Your task to perform on an android device: View the shopping cart on amazon. Add "razer kraken" to the cart on amazon, then select checkout. Image 0: 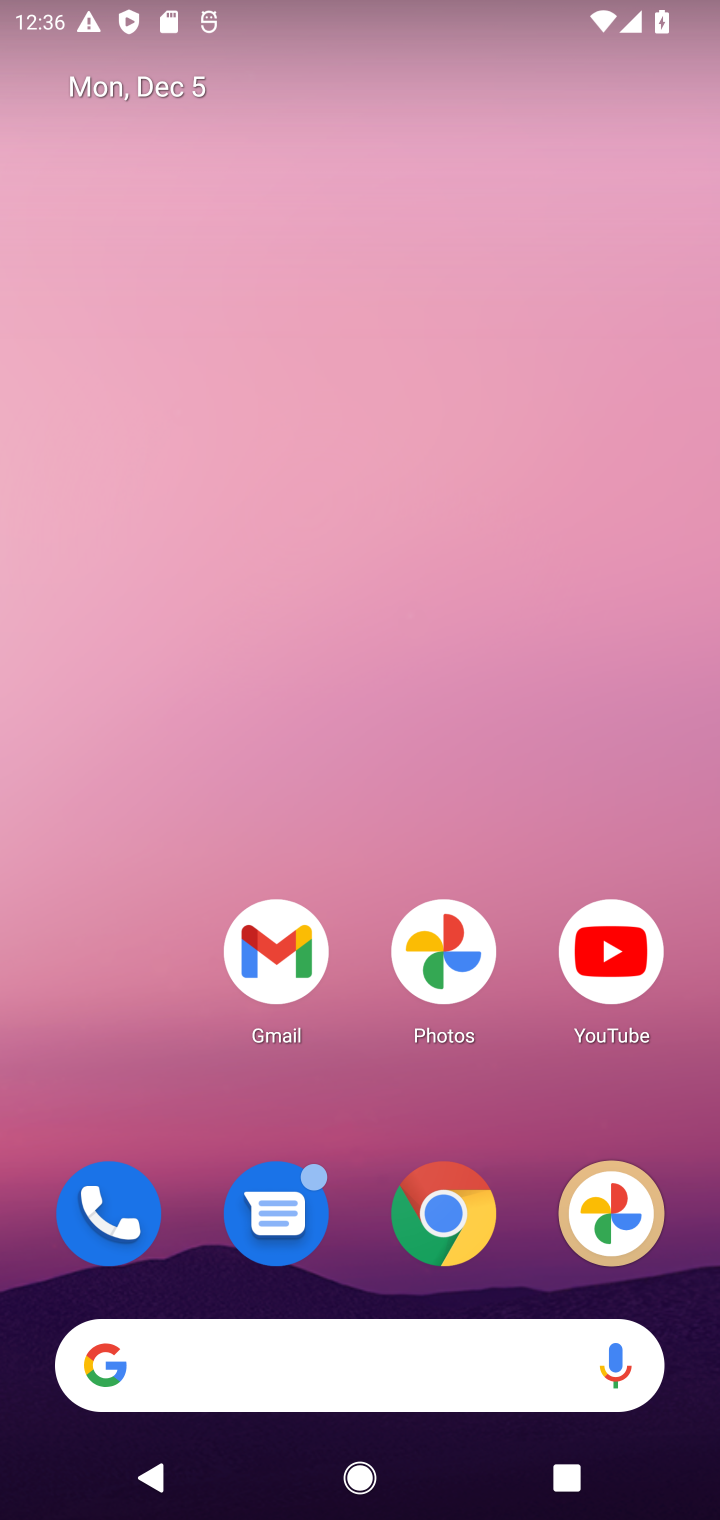
Step 0: click (435, 1225)
Your task to perform on an android device: View the shopping cart on amazon. Add "razer kraken" to the cart on amazon, then select checkout. Image 1: 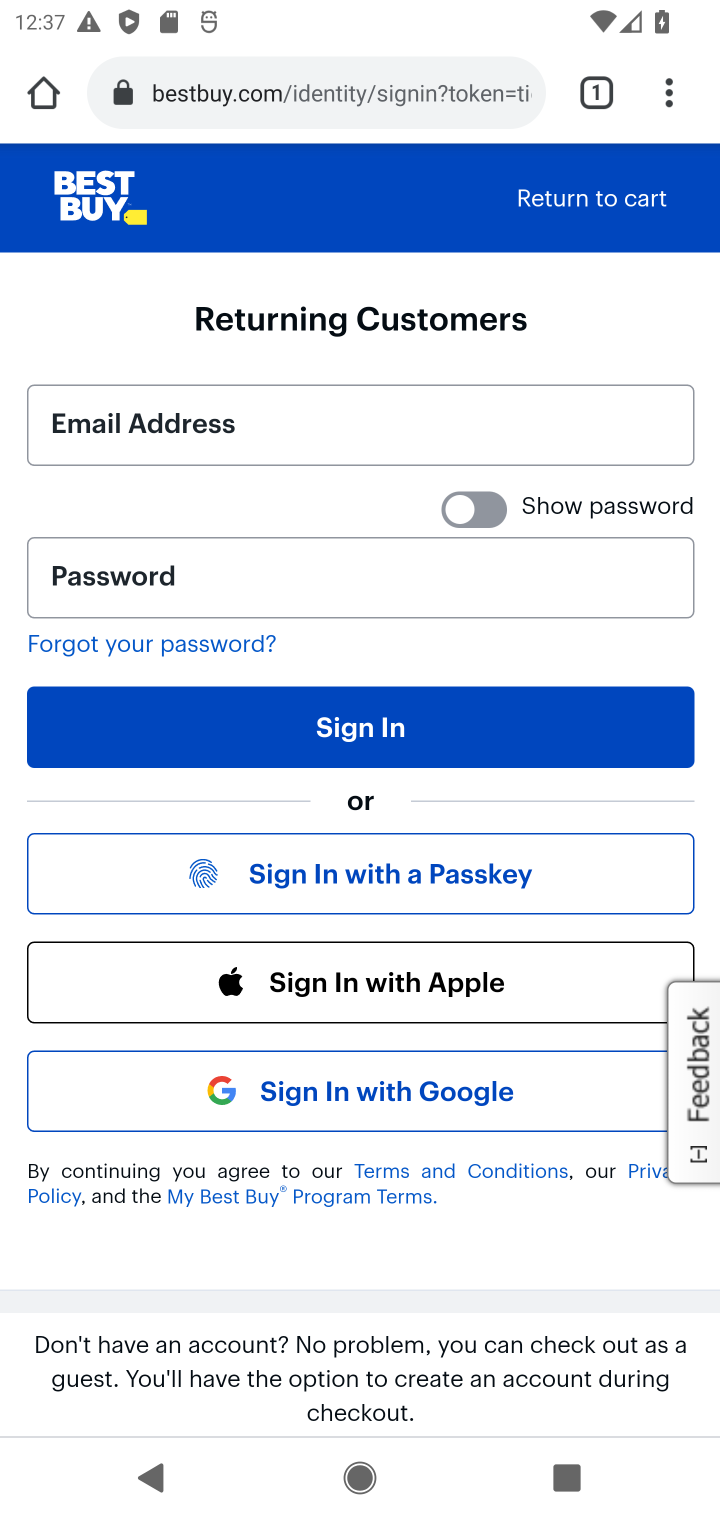
Step 1: click (330, 85)
Your task to perform on an android device: View the shopping cart on amazon. Add "razer kraken" to the cart on amazon, then select checkout. Image 2: 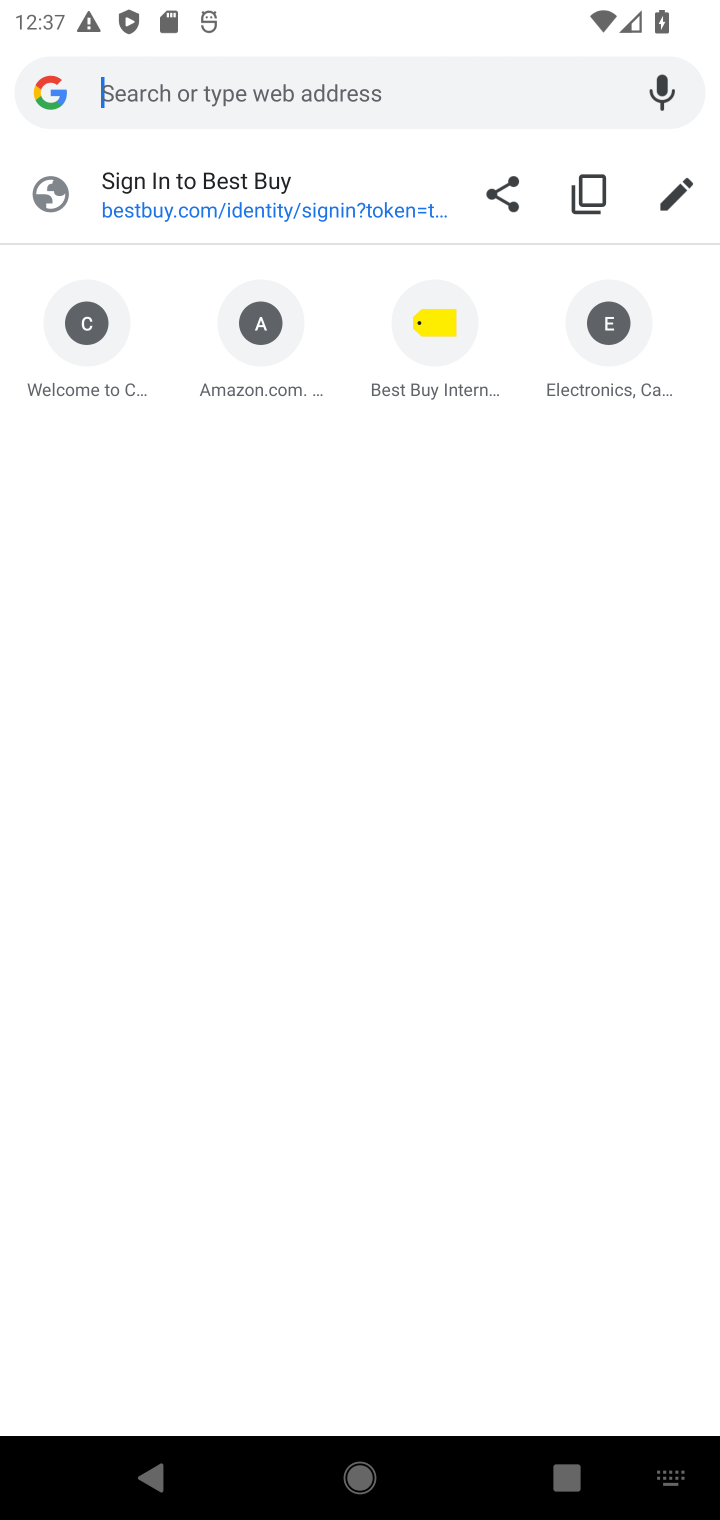
Step 2: click (239, 362)
Your task to perform on an android device: View the shopping cart on amazon. Add "razer kraken" to the cart on amazon, then select checkout. Image 3: 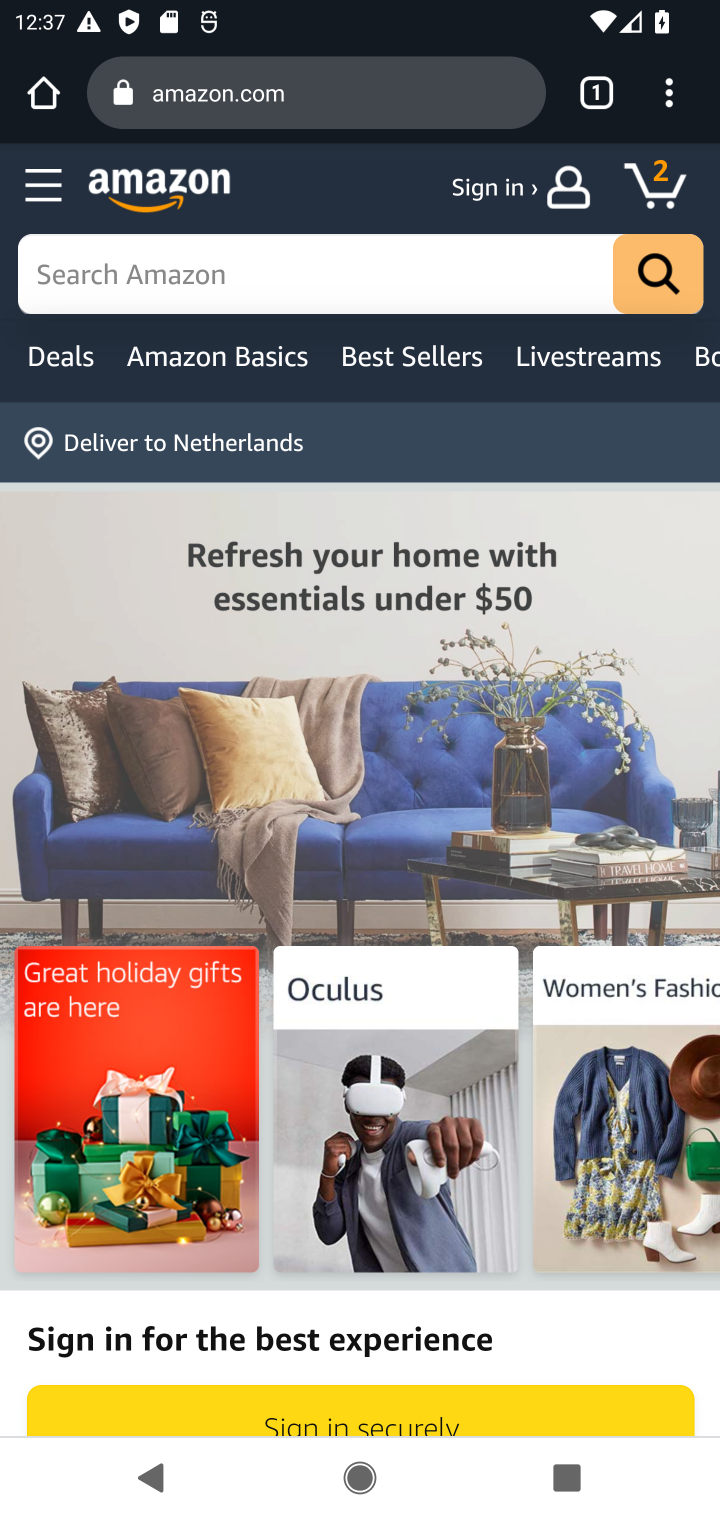
Step 3: click (649, 192)
Your task to perform on an android device: View the shopping cart on amazon. Add "razer kraken" to the cart on amazon, then select checkout. Image 4: 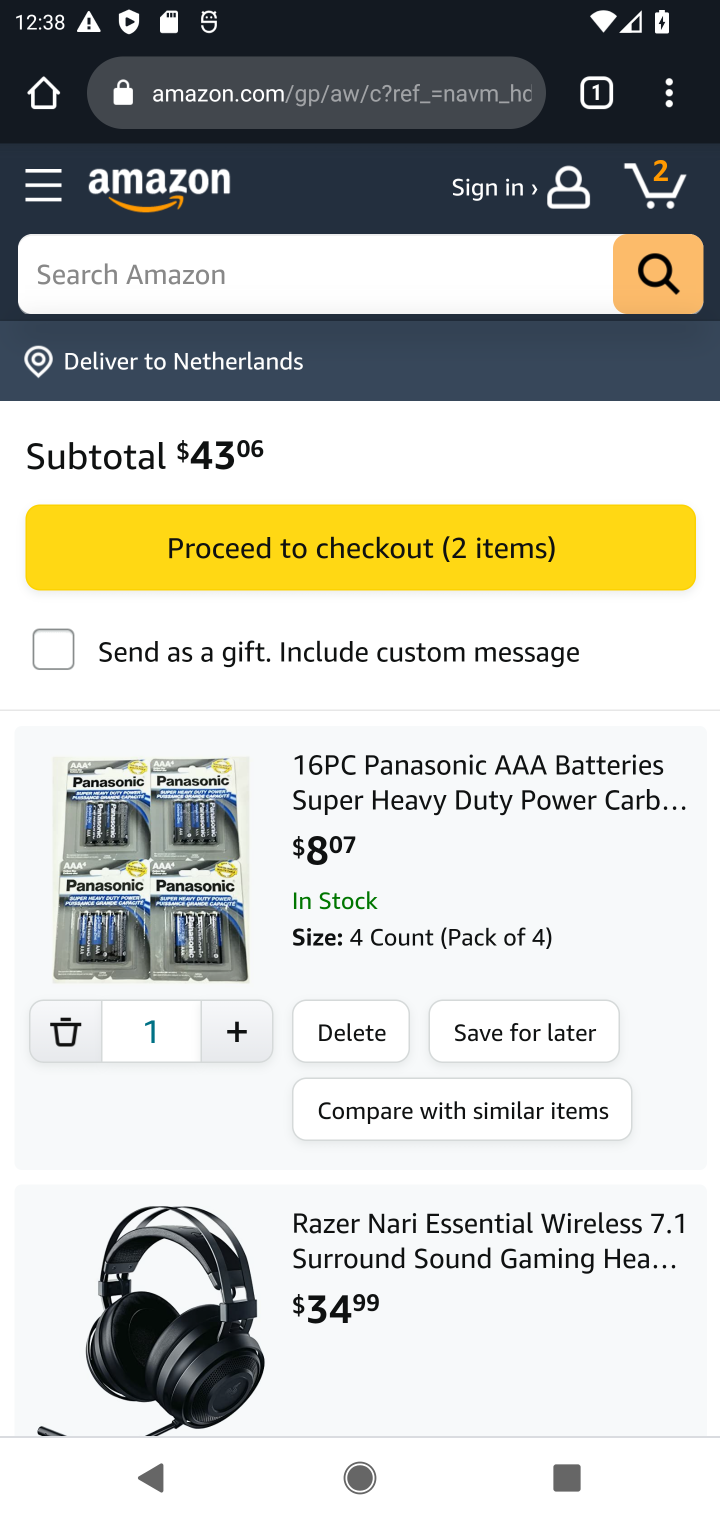
Step 4: click (226, 277)
Your task to perform on an android device: View the shopping cart on amazon. Add "razer kraken" to the cart on amazon, then select checkout. Image 5: 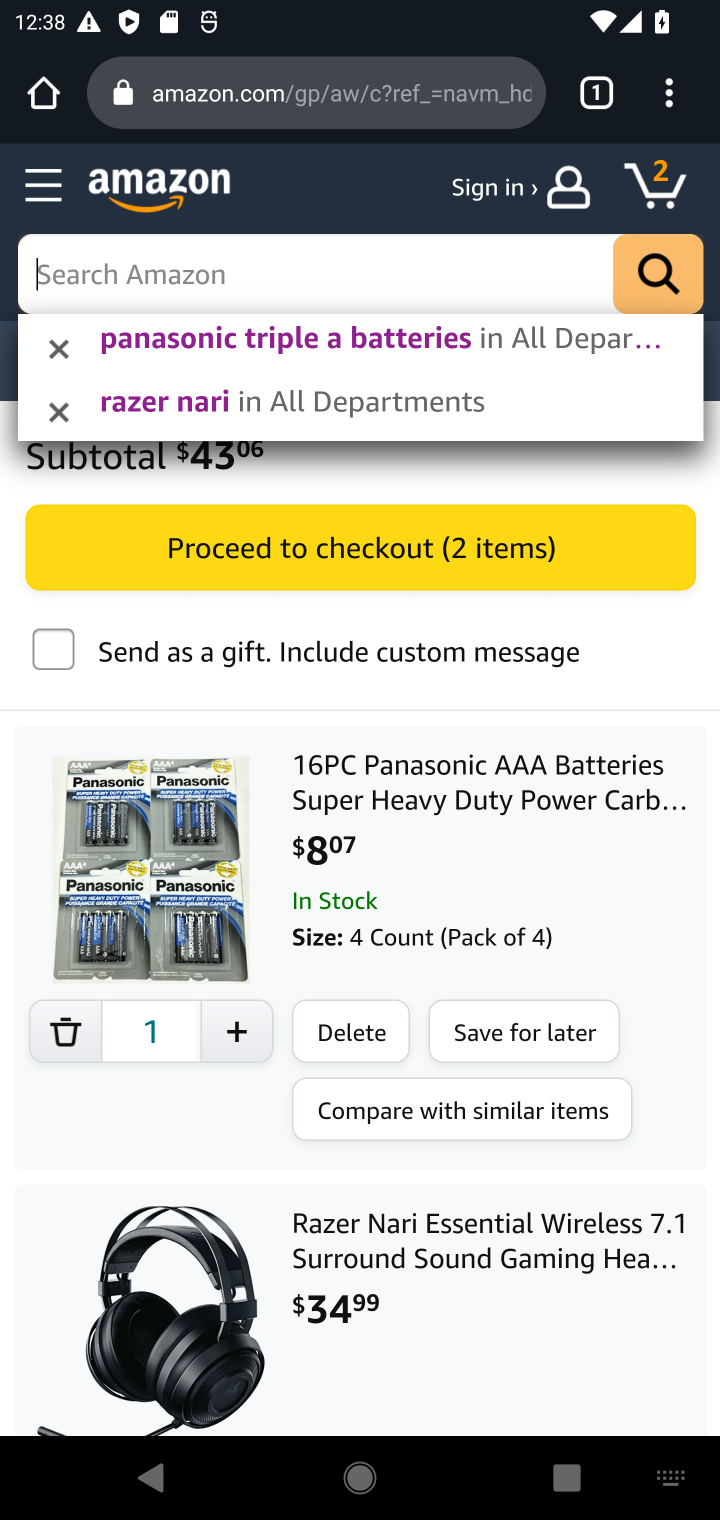
Step 5: type "razer kraken"
Your task to perform on an android device: View the shopping cart on amazon. Add "razer kraken" to the cart on amazon, then select checkout. Image 6: 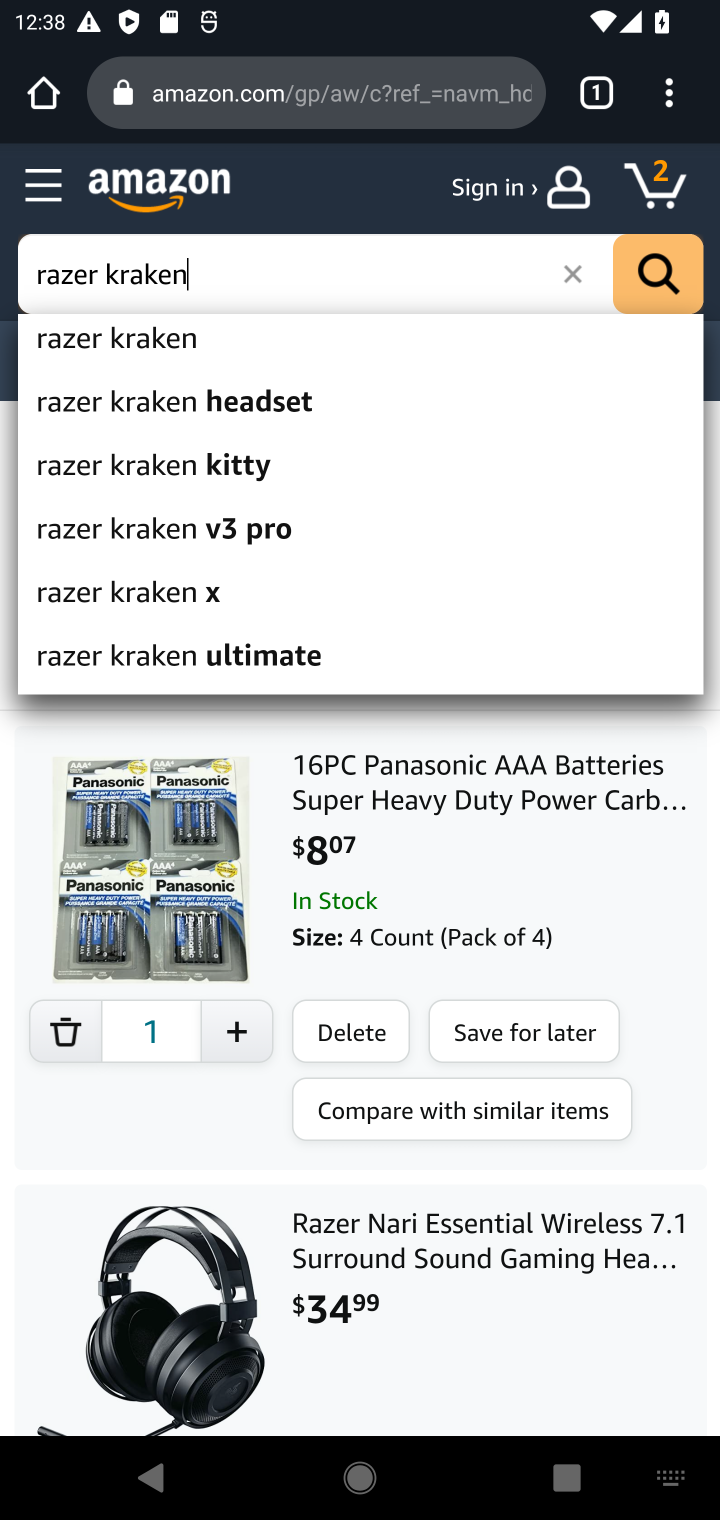
Step 6: click (177, 347)
Your task to perform on an android device: View the shopping cart on amazon. Add "razer kraken" to the cart on amazon, then select checkout. Image 7: 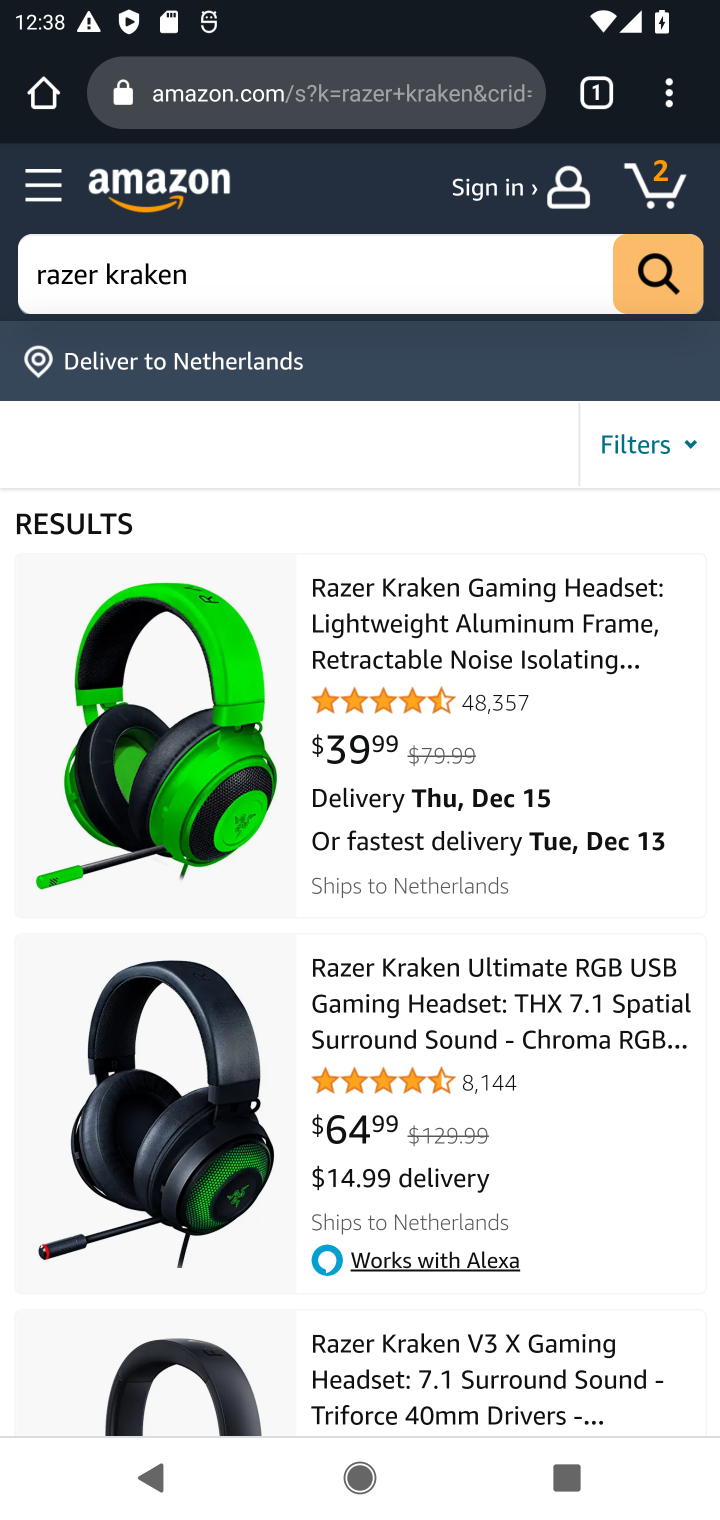
Step 7: click (439, 653)
Your task to perform on an android device: View the shopping cart on amazon. Add "razer kraken" to the cart on amazon, then select checkout. Image 8: 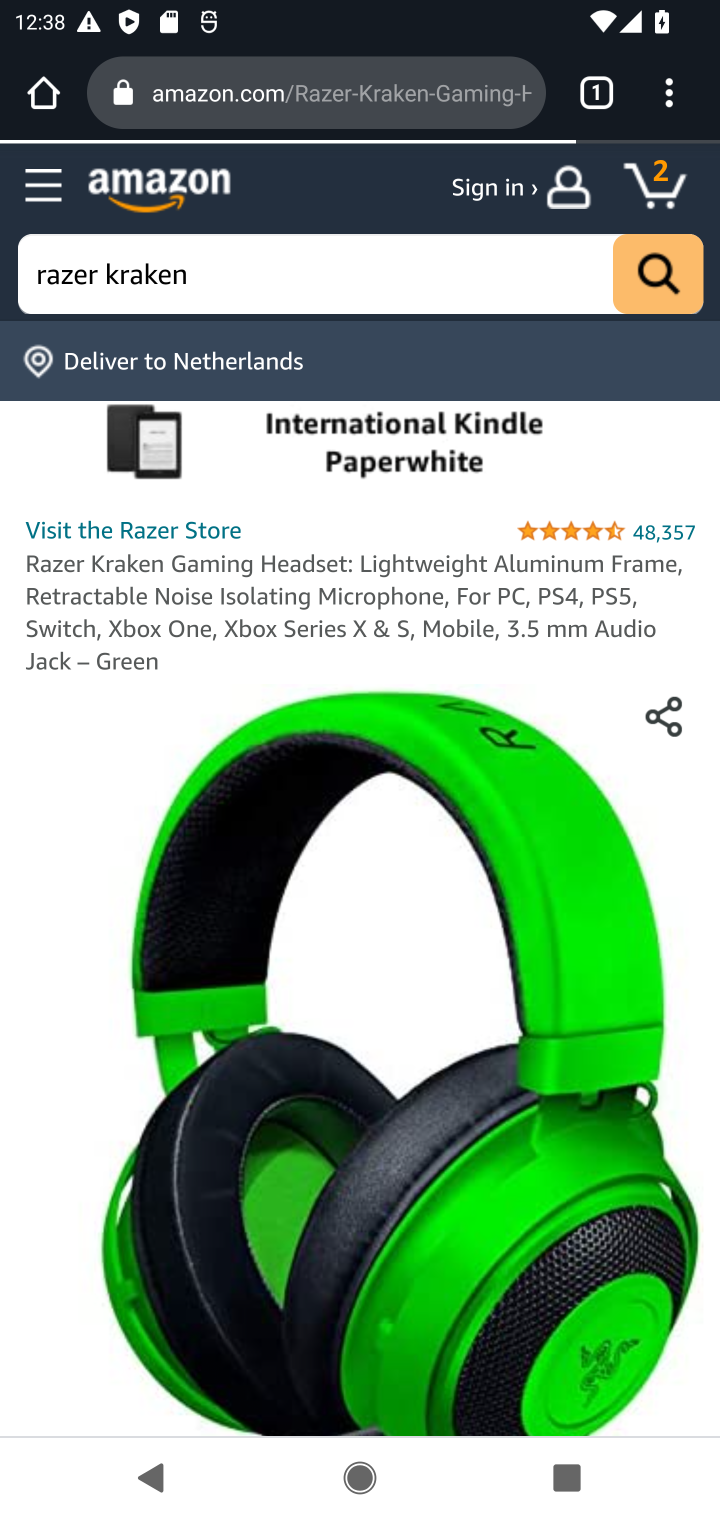
Step 8: drag from (428, 909) to (438, 569)
Your task to perform on an android device: View the shopping cart on amazon. Add "razer kraken" to the cart on amazon, then select checkout. Image 9: 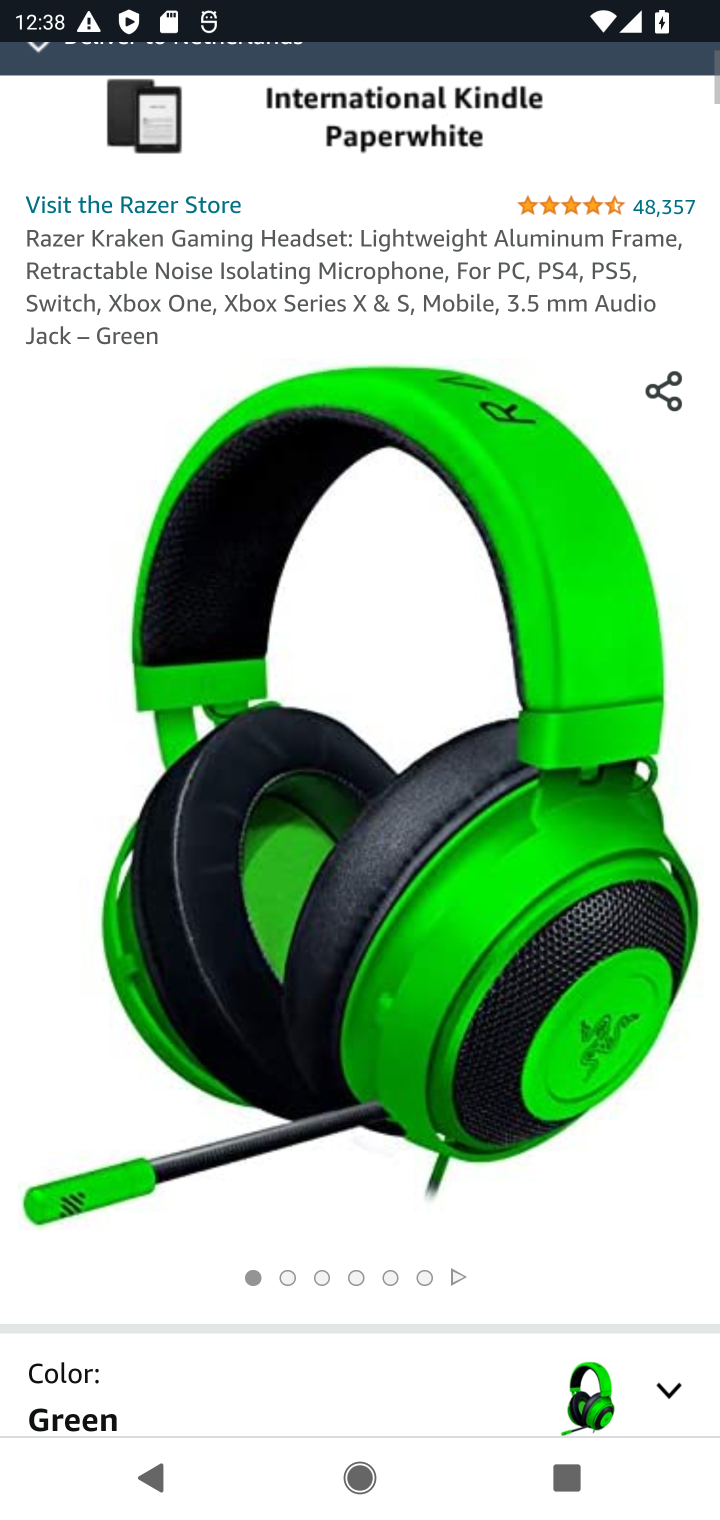
Step 9: drag from (441, 926) to (443, 546)
Your task to perform on an android device: View the shopping cart on amazon. Add "razer kraken" to the cart on amazon, then select checkout. Image 10: 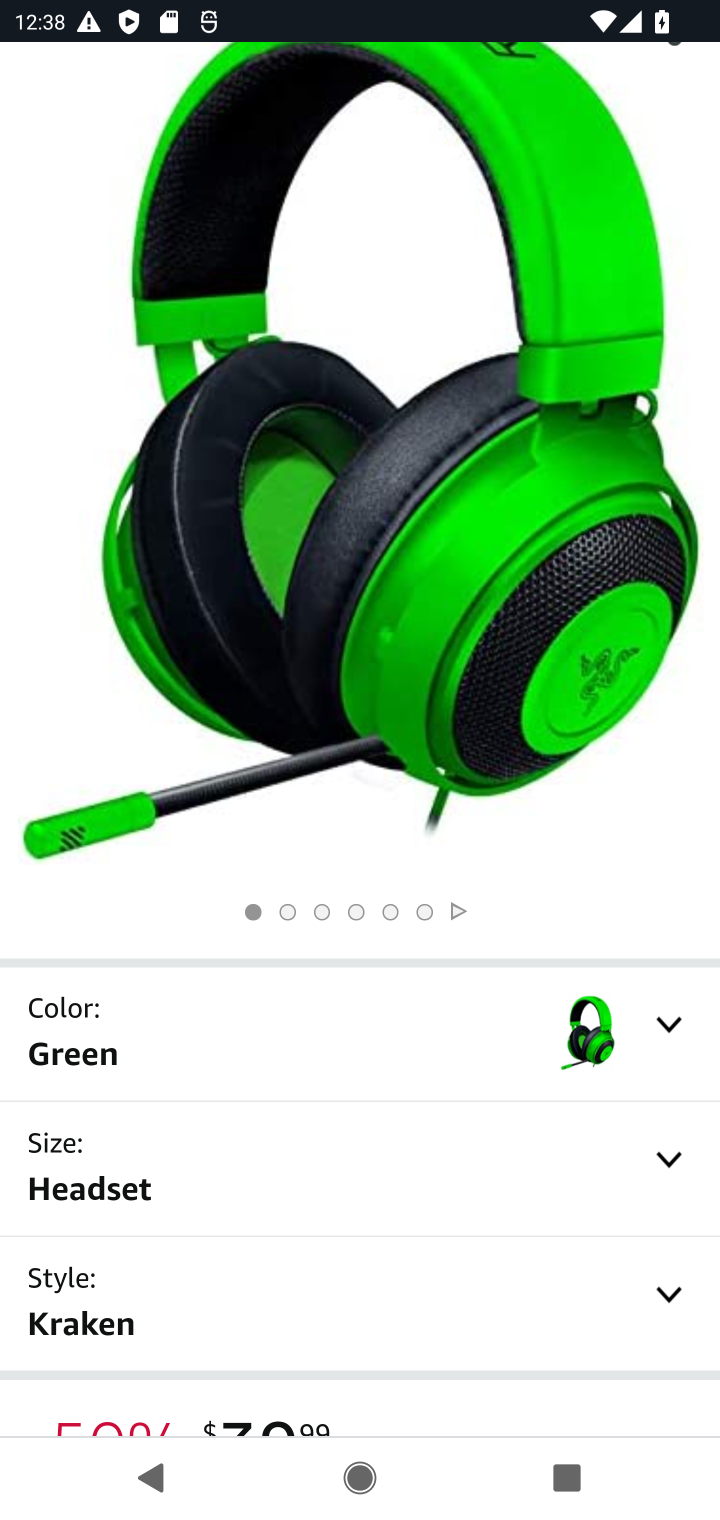
Step 10: drag from (425, 754) to (423, 468)
Your task to perform on an android device: View the shopping cart on amazon. Add "razer kraken" to the cart on amazon, then select checkout. Image 11: 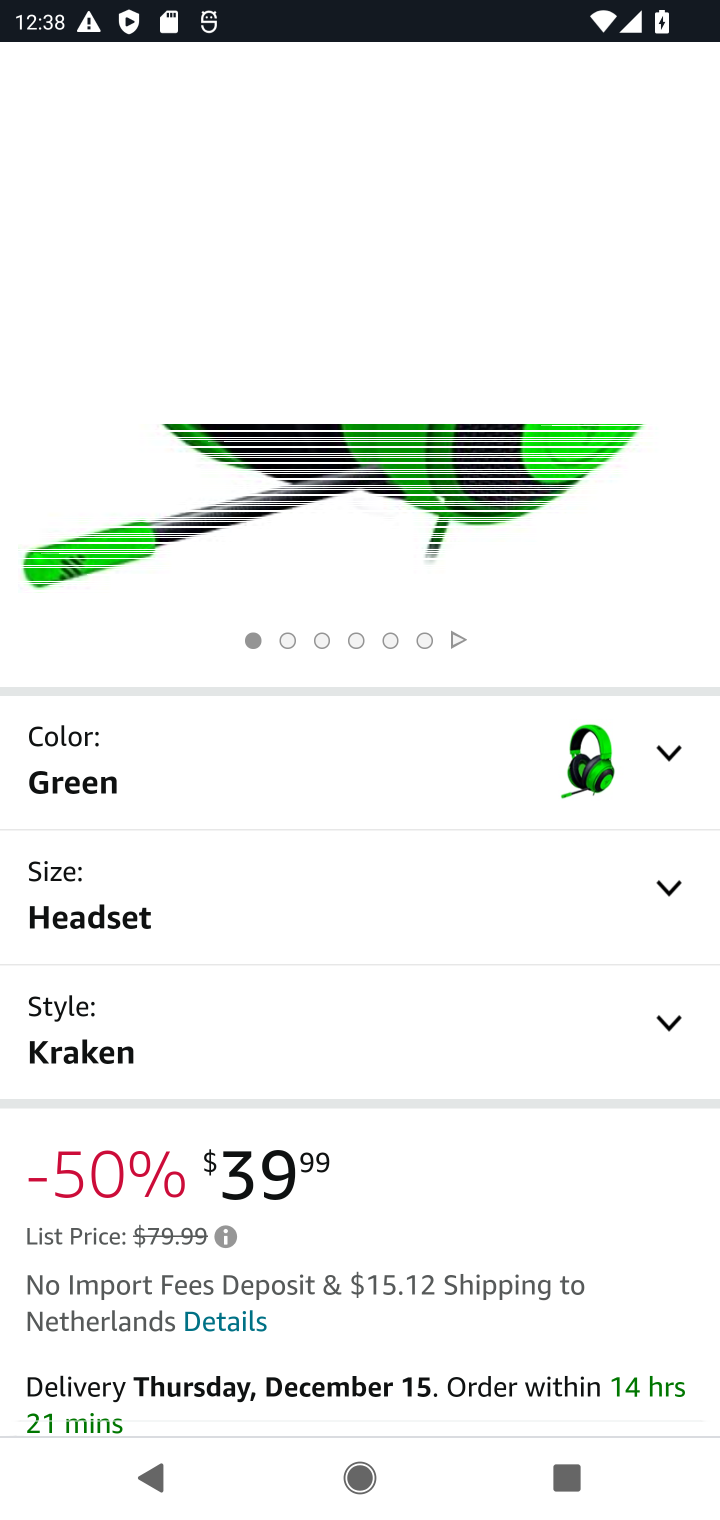
Step 11: drag from (344, 1103) to (344, 543)
Your task to perform on an android device: View the shopping cart on amazon. Add "razer kraken" to the cart on amazon, then select checkout. Image 12: 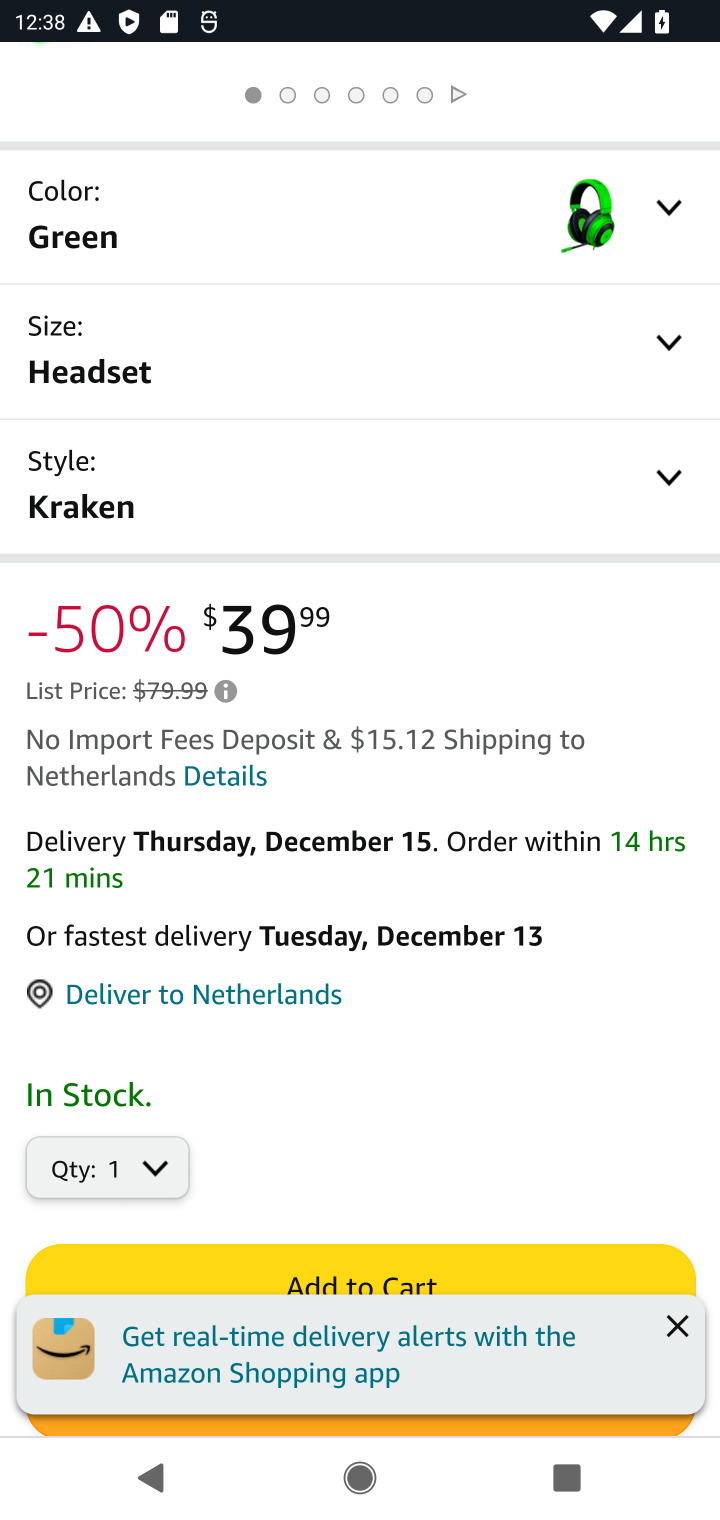
Step 12: drag from (328, 1018) to (315, 636)
Your task to perform on an android device: View the shopping cart on amazon. Add "razer kraken" to the cart on amazon, then select checkout. Image 13: 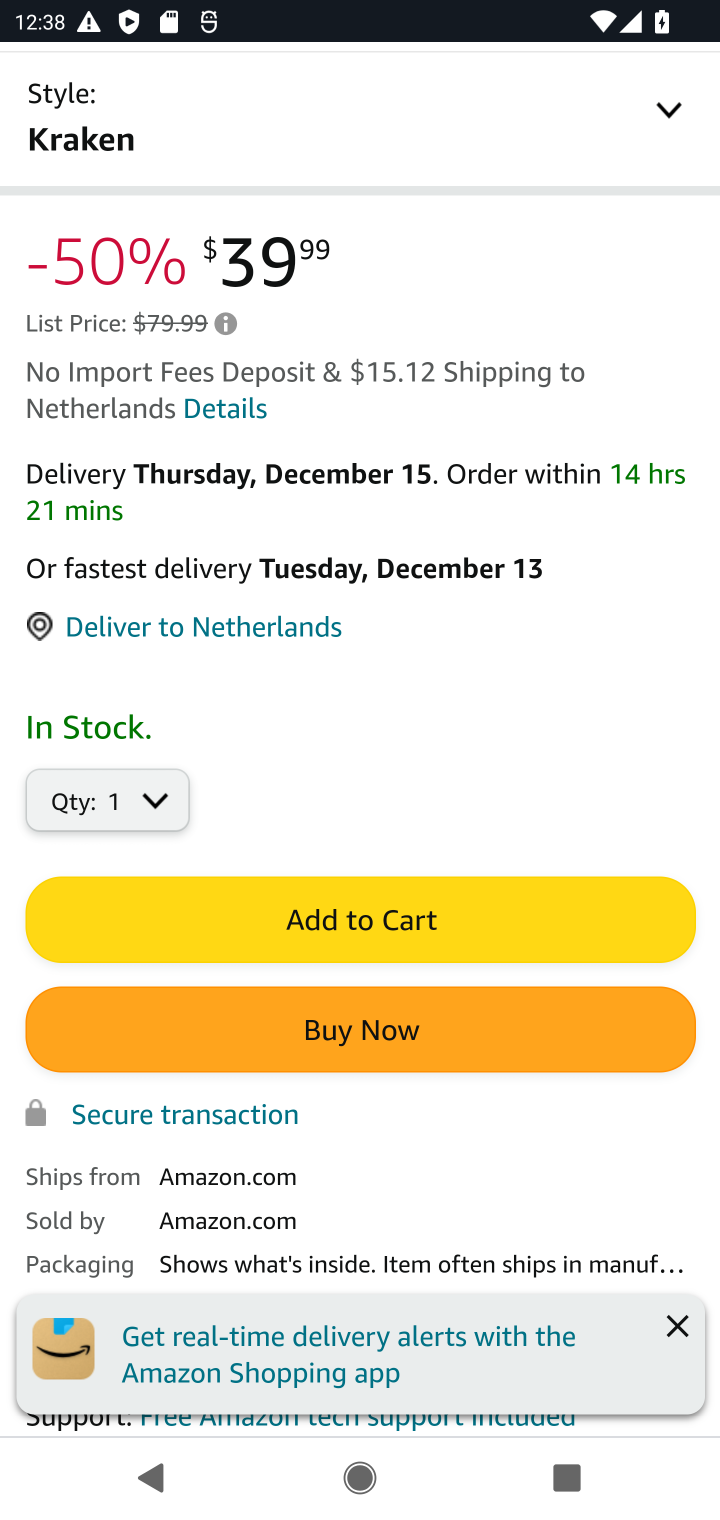
Step 13: click (342, 911)
Your task to perform on an android device: View the shopping cart on amazon. Add "razer kraken" to the cart on amazon, then select checkout. Image 14: 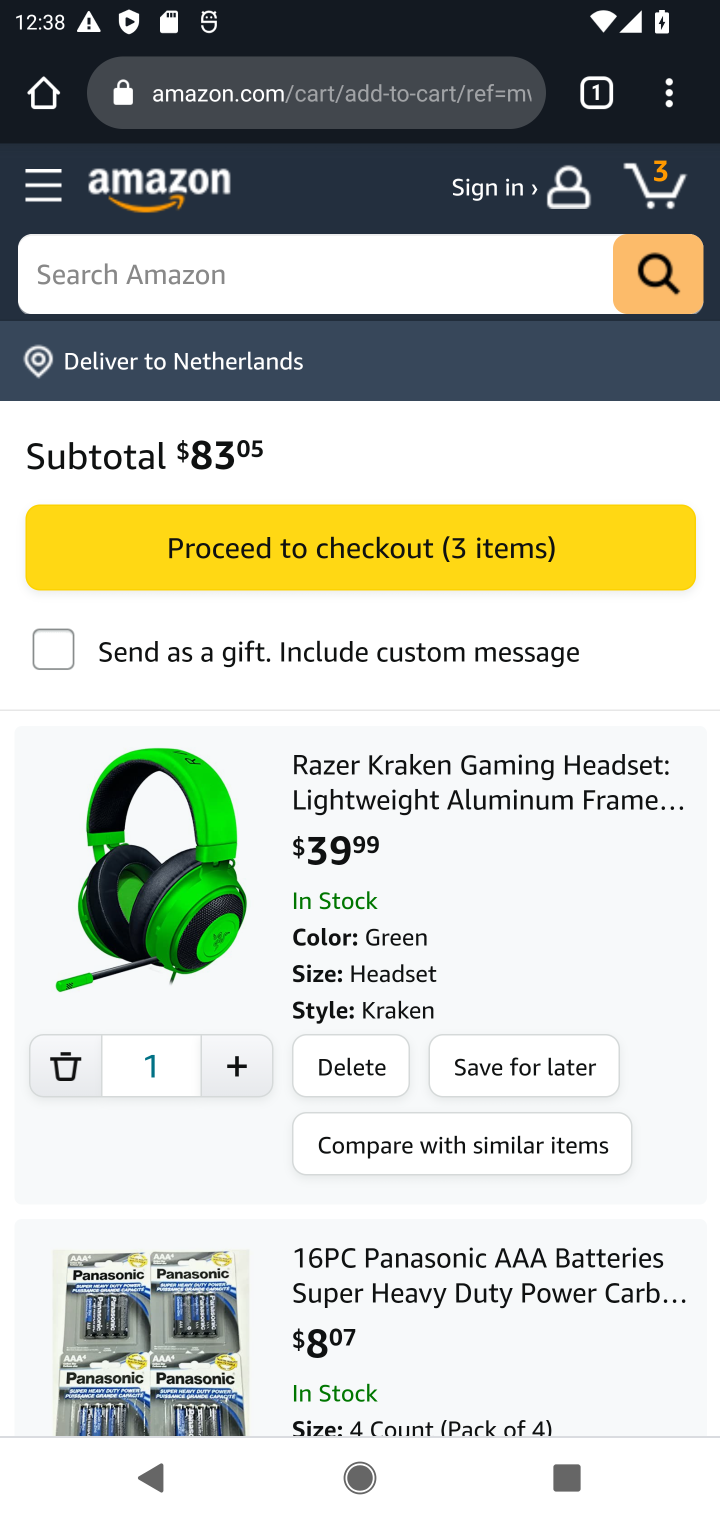
Step 14: click (379, 562)
Your task to perform on an android device: View the shopping cart on amazon. Add "razer kraken" to the cart on amazon, then select checkout. Image 15: 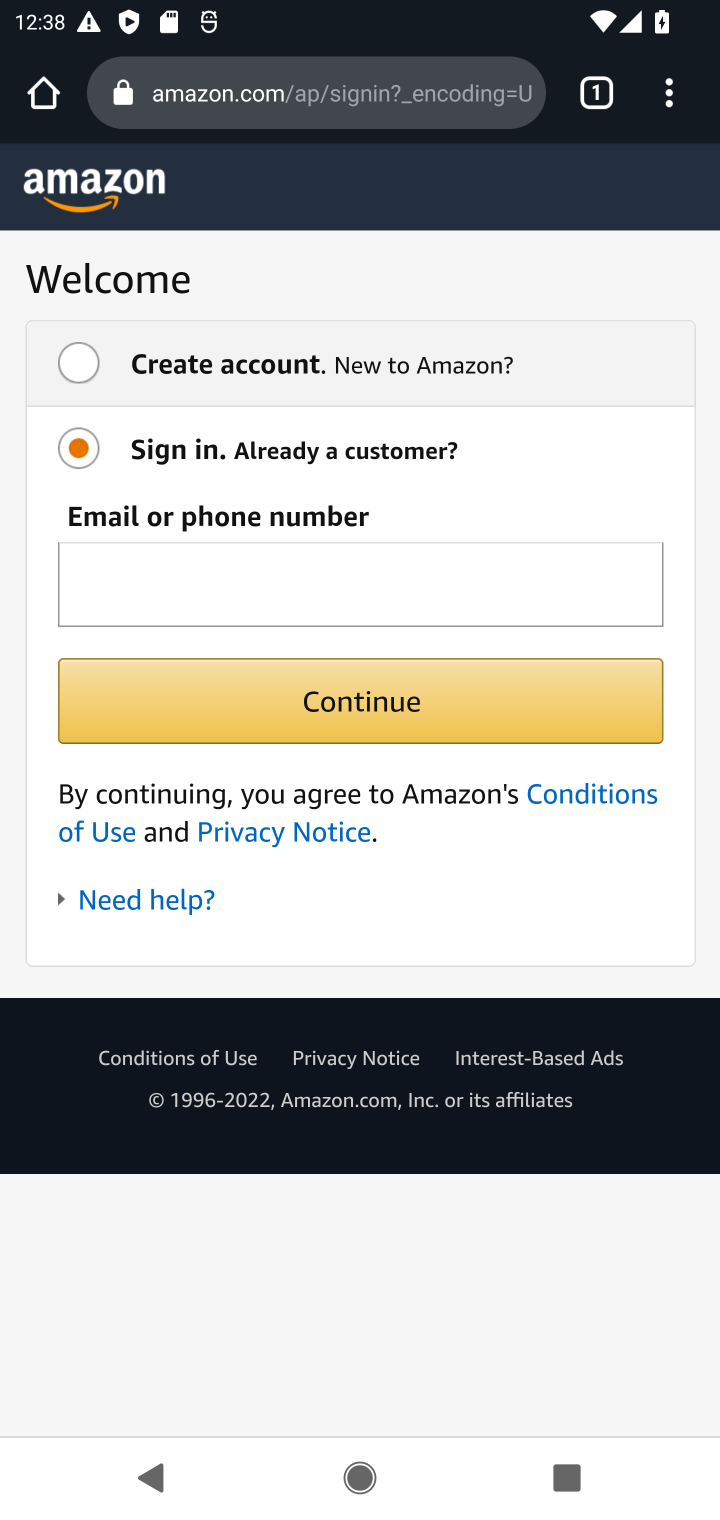
Step 15: task complete